Your task to perform on an android device: Search for seafood restaurants on Google Maps Image 0: 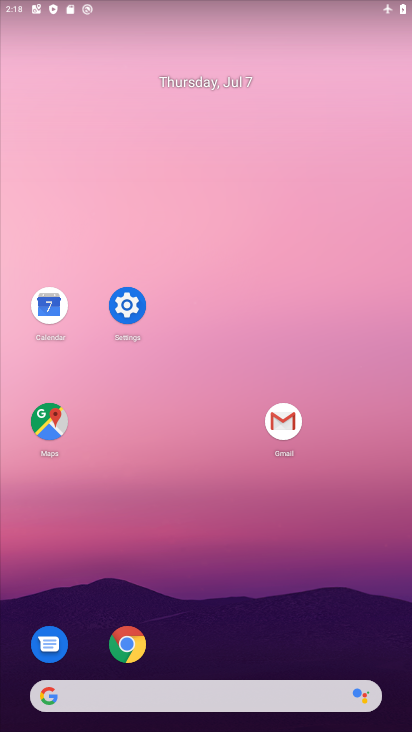
Step 0: click (62, 419)
Your task to perform on an android device: Search for seafood restaurants on Google Maps Image 1: 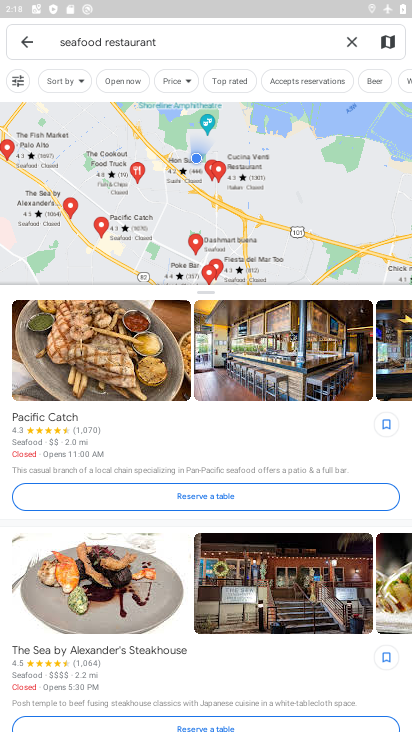
Step 1: task complete